Your task to perform on an android device: Open Chrome and go to the settings page Image 0: 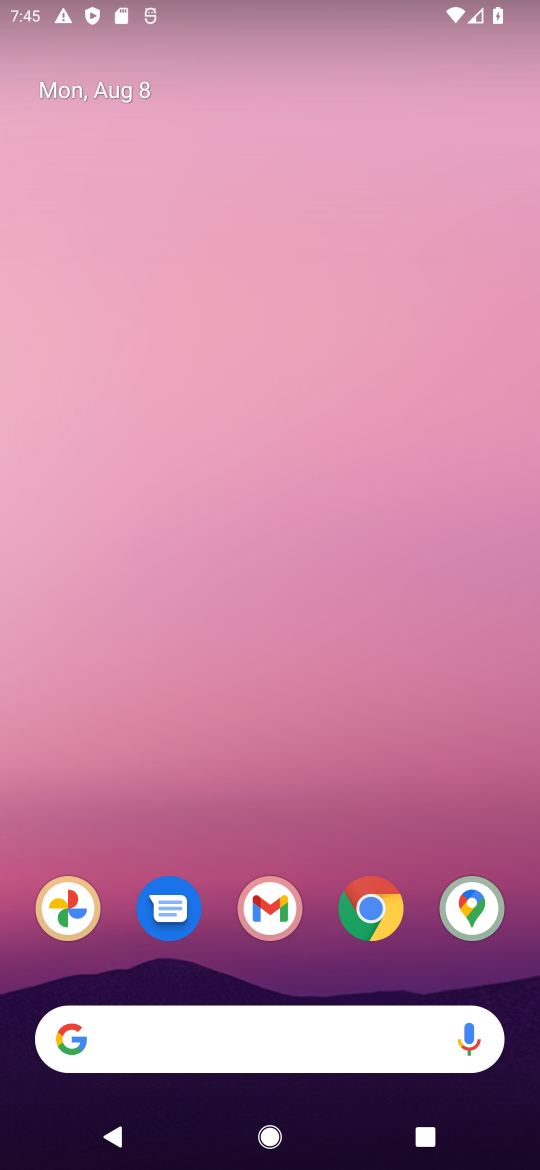
Step 0: click (376, 892)
Your task to perform on an android device: Open Chrome and go to the settings page Image 1: 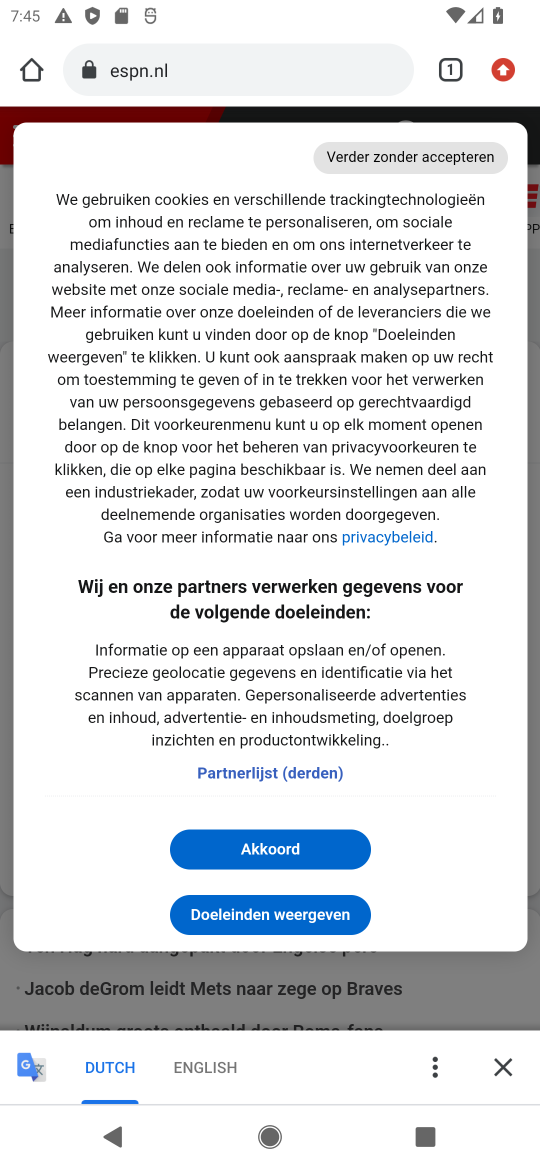
Step 1: click (506, 68)
Your task to perform on an android device: Open Chrome and go to the settings page Image 2: 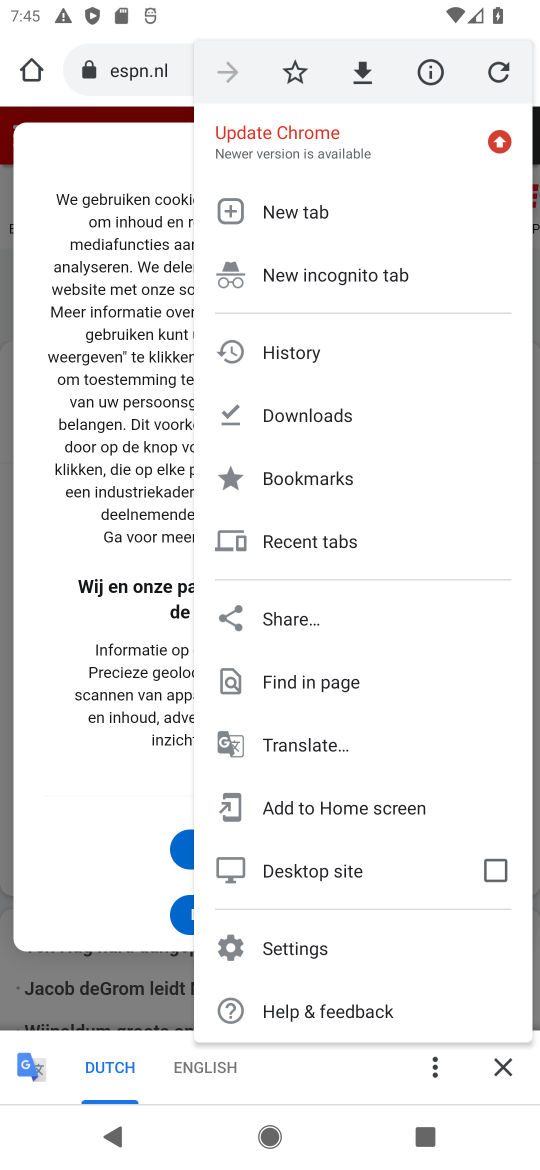
Step 2: click (314, 946)
Your task to perform on an android device: Open Chrome and go to the settings page Image 3: 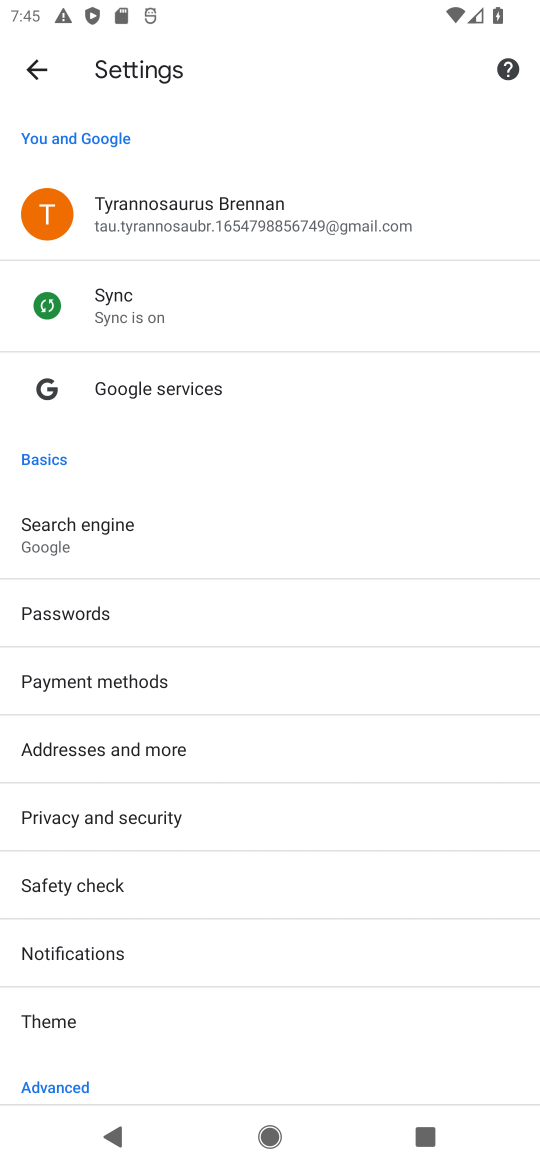
Step 3: task complete